Your task to perform on an android device: When is my next appointment? Image 0: 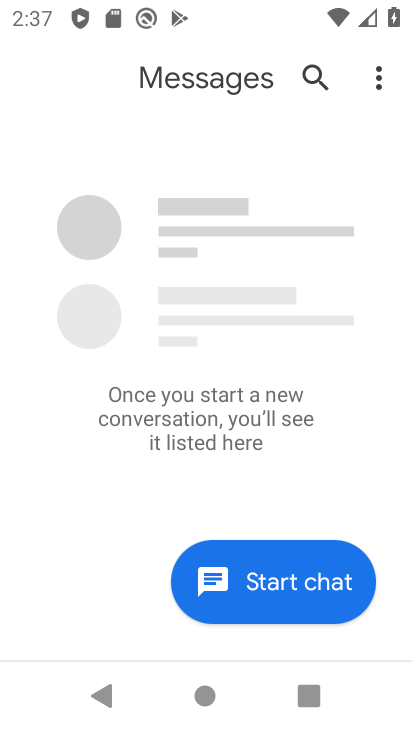
Step 0: press back button
Your task to perform on an android device: When is my next appointment? Image 1: 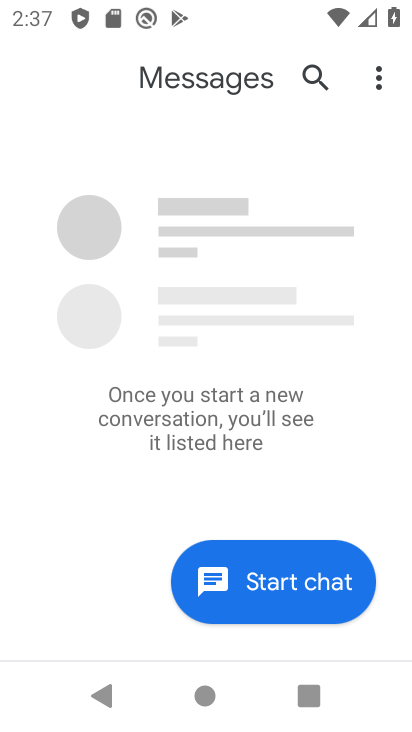
Step 1: press back button
Your task to perform on an android device: When is my next appointment? Image 2: 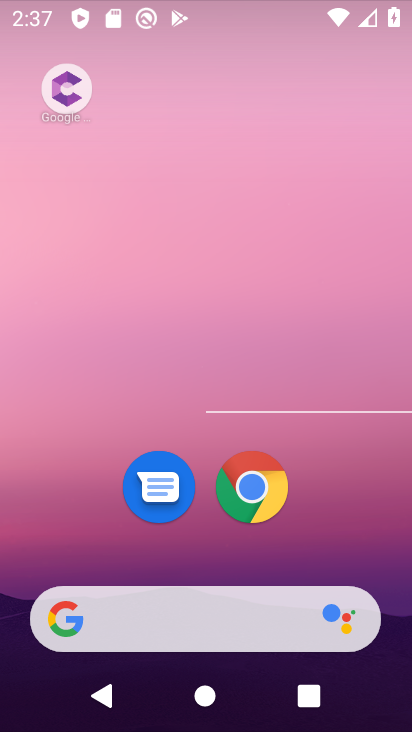
Step 2: press back button
Your task to perform on an android device: When is my next appointment? Image 3: 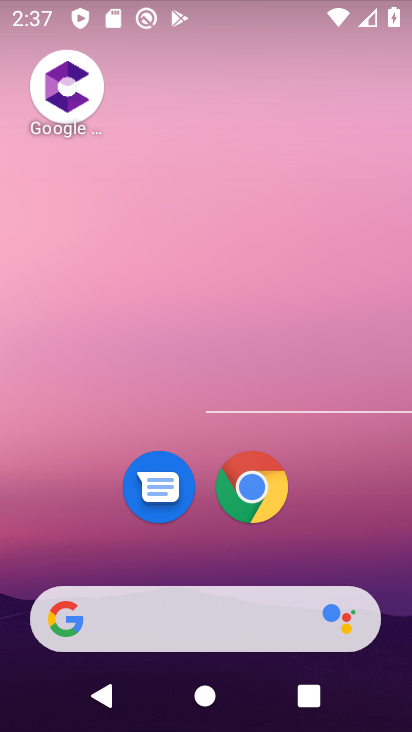
Step 3: press home button
Your task to perform on an android device: When is my next appointment? Image 4: 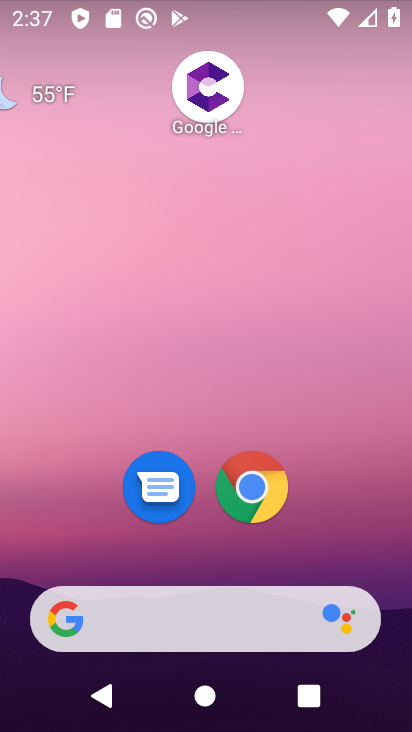
Step 4: press home button
Your task to perform on an android device: When is my next appointment? Image 5: 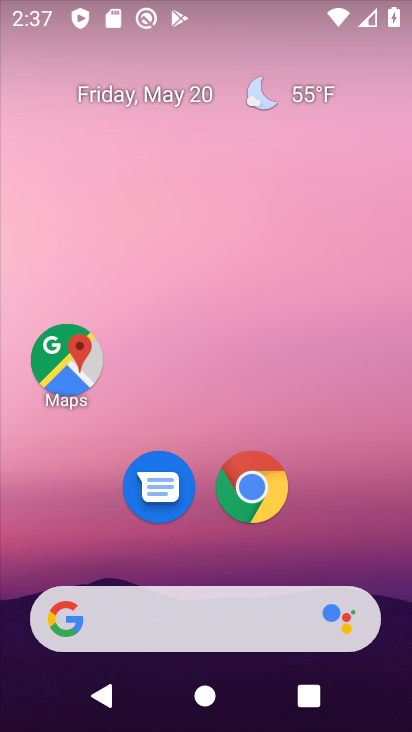
Step 5: click (199, 140)
Your task to perform on an android device: When is my next appointment? Image 6: 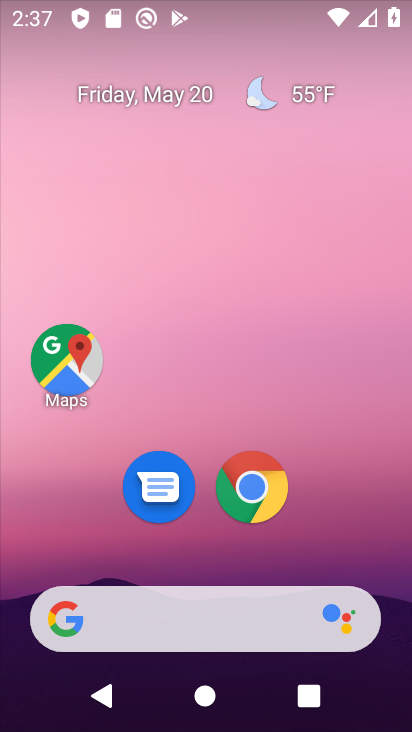
Step 6: drag from (257, 683) to (188, 15)
Your task to perform on an android device: When is my next appointment? Image 7: 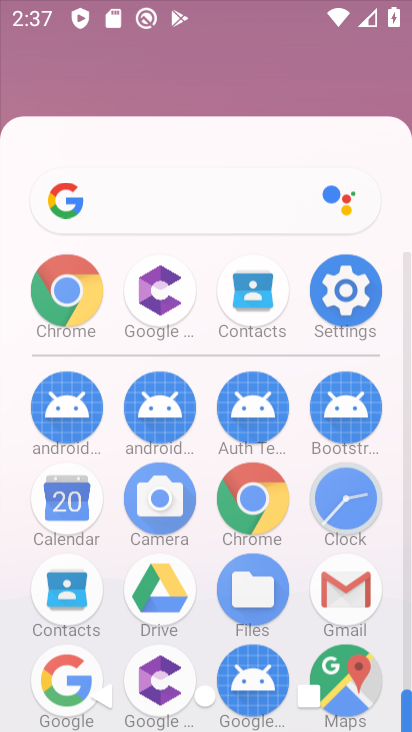
Step 7: drag from (274, 502) to (230, 39)
Your task to perform on an android device: When is my next appointment? Image 8: 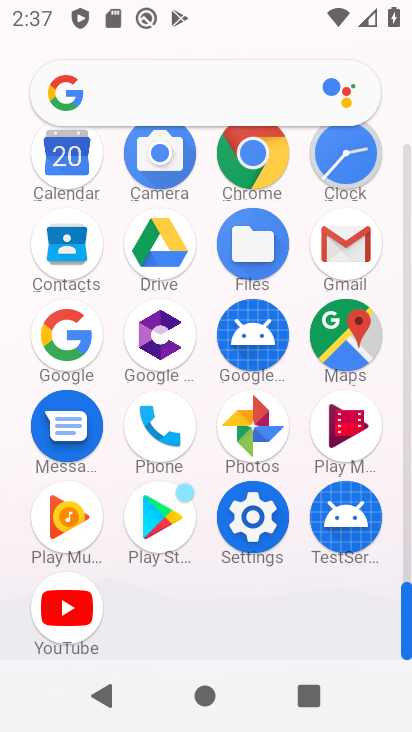
Step 8: click (66, 161)
Your task to perform on an android device: When is my next appointment? Image 9: 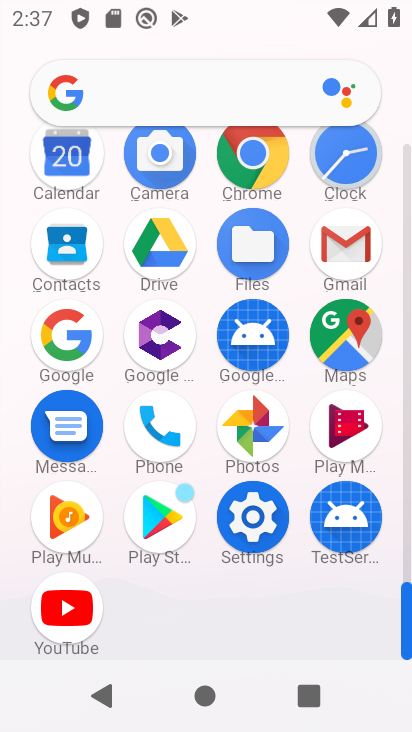
Step 9: click (66, 161)
Your task to perform on an android device: When is my next appointment? Image 10: 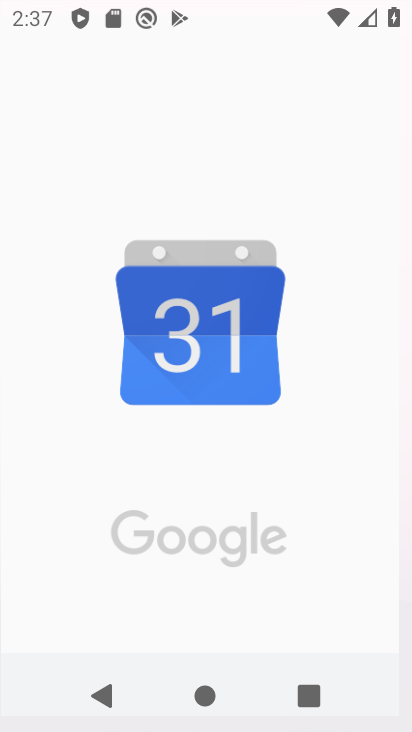
Step 10: click (66, 161)
Your task to perform on an android device: When is my next appointment? Image 11: 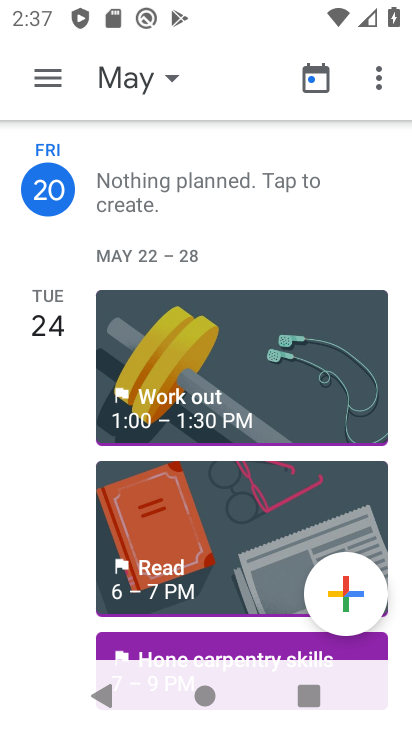
Step 11: drag from (163, 453) to (186, 131)
Your task to perform on an android device: When is my next appointment? Image 12: 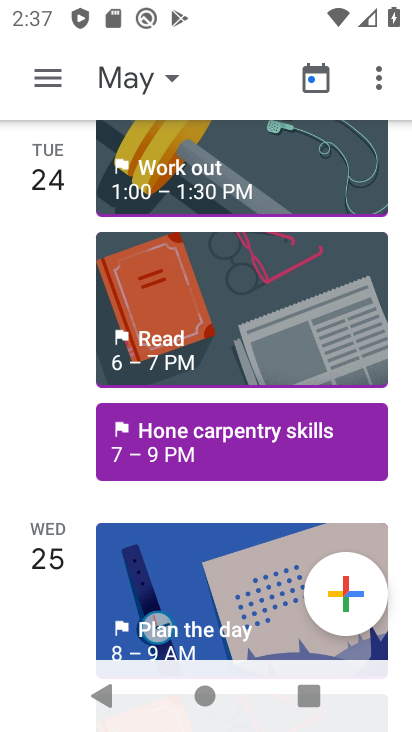
Step 12: drag from (177, 359) to (164, 97)
Your task to perform on an android device: When is my next appointment? Image 13: 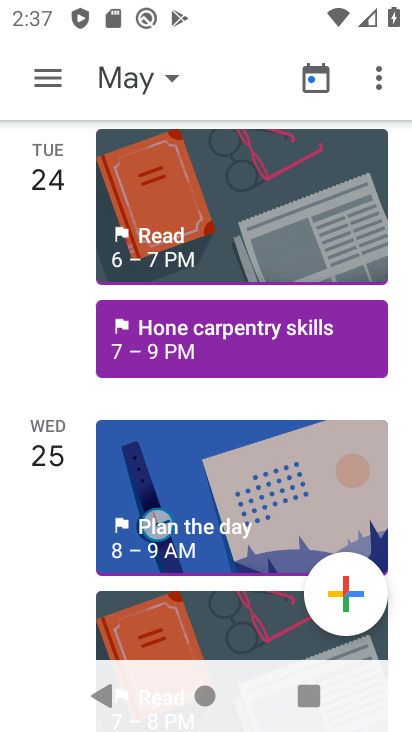
Step 13: click (211, 121)
Your task to perform on an android device: When is my next appointment? Image 14: 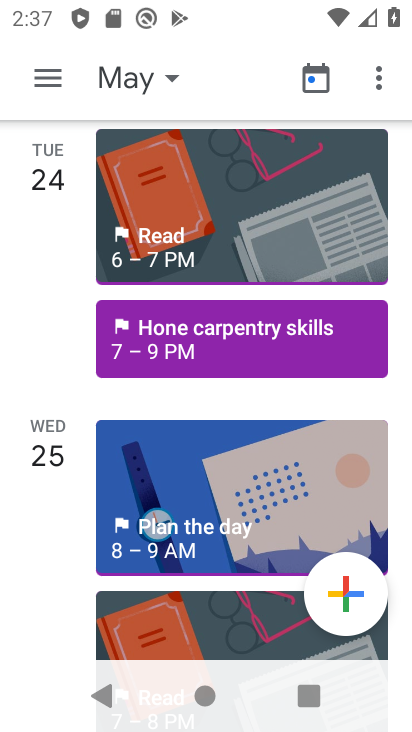
Step 14: click (158, 273)
Your task to perform on an android device: When is my next appointment? Image 15: 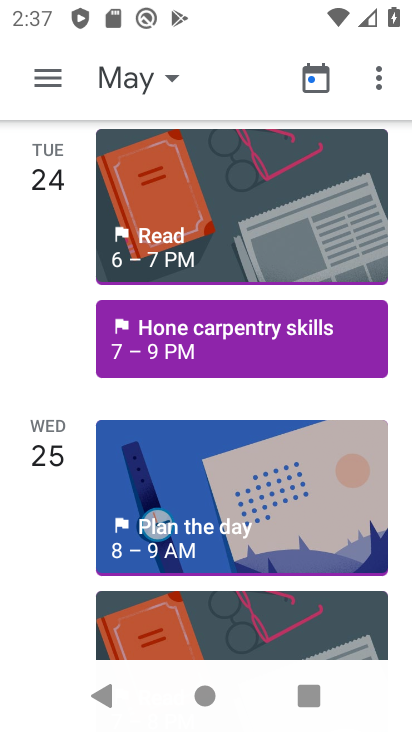
Step 15: task complete